Your task to perform on an android device: turn off location Image 0: 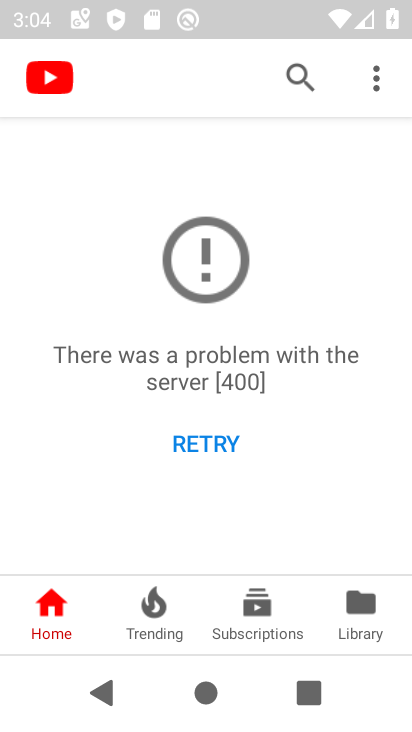
Step 0: press back button
Your task to perform on an android device: turn off location Image 1: 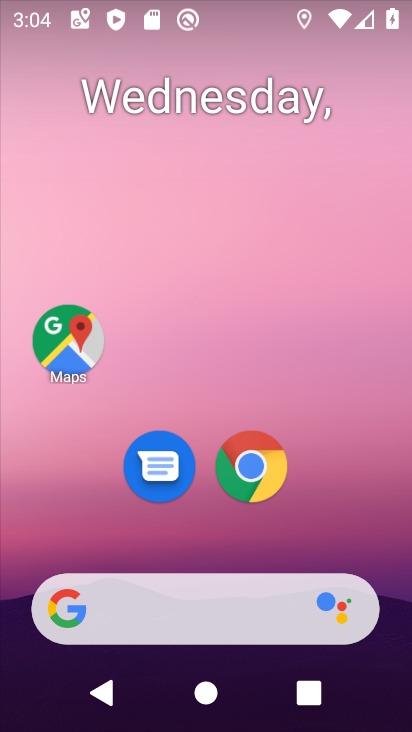
Step 1: drag from (253, 559) to (271, 37)
Your task to perform on an android device: turn off location Image 2: 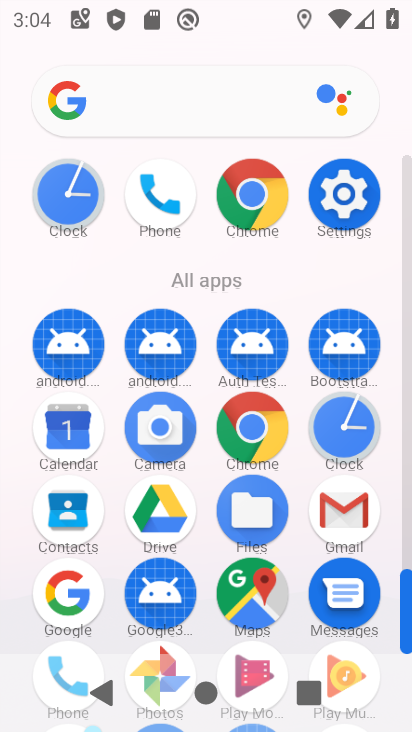
Step 2: click (344, 189)
Your task to perform on an android device: turn off location Image 3: 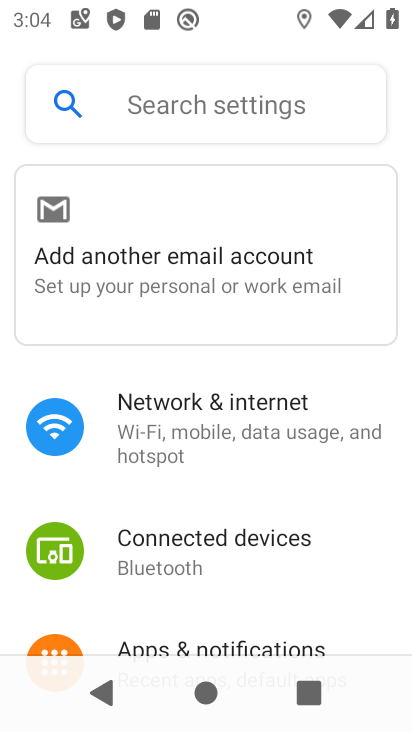
Step 3: drag from (300, 540) to (234, 107)
Your task to perform on an android device: turn off location Image 4: 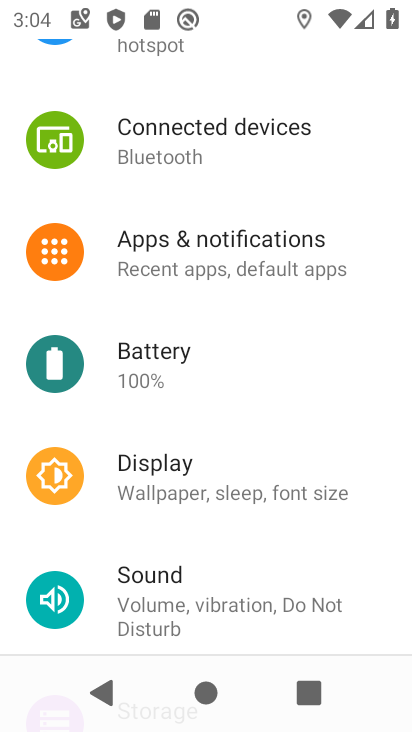
Step 4: drag from (199, 437) to (147, 20)
Your task to perform on an android device: turn off location Image 5: 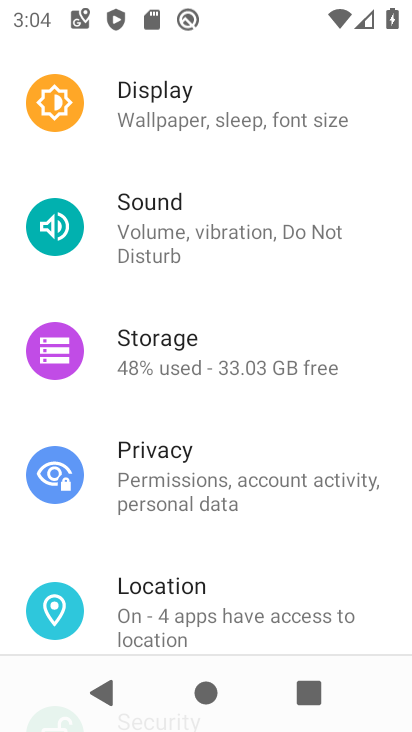
Step 5: click (136, 593)
Your task to perform on an android device: turn off location Image 6: 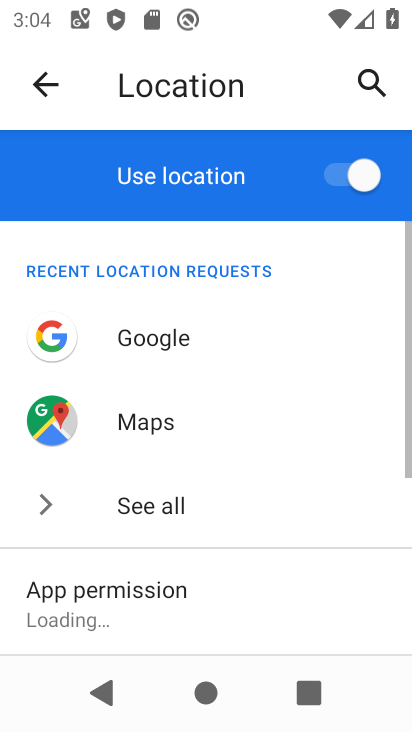
Step 6: click (307, 188)
Your task to perform on an android device: turn off location Image 7: 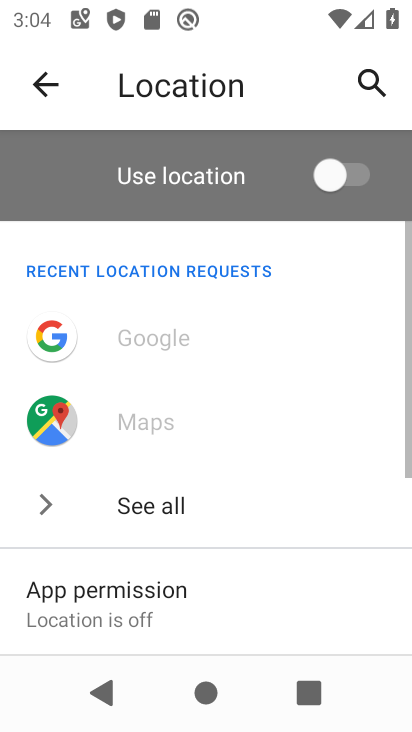
Step 7: task complete